Your task to perform on an android device: open chrome privacy settings Image 0: 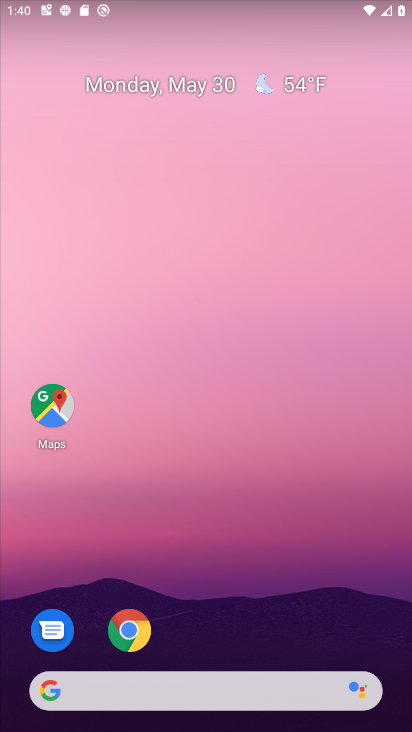
Step 0: press home button
Your task to perform on an android device: open chrome privacy settings Image 1: 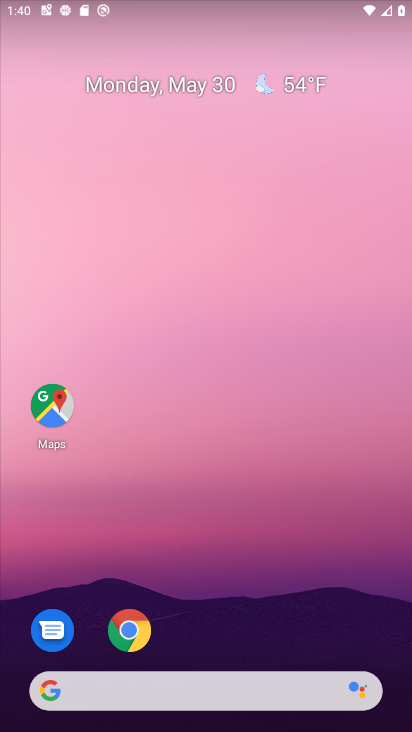
Step 1: click (127, 629)
Your task to perform on an android device: open chrome privacy settings Image 2: 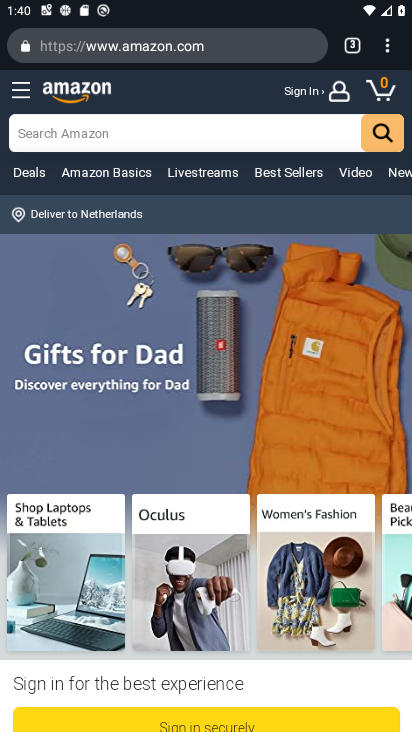
Step 2: drag from (393, 40) to (258, 561)
Your task to perform on an android device: open chrome privacy settings Image 3: 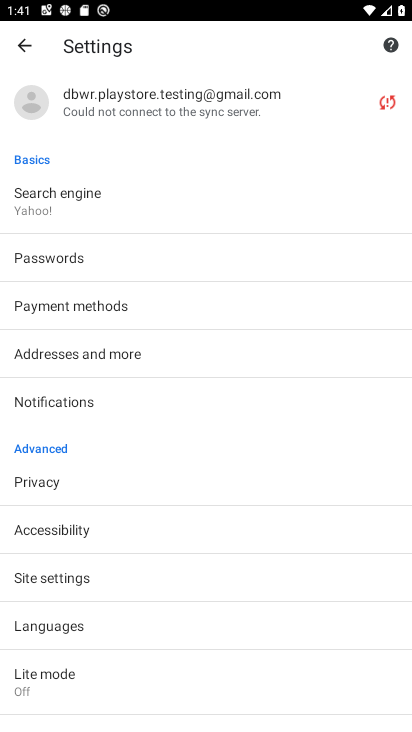
Step 3: click (32, 478)
Your task to perform on an android device: open chrome privacy settings Image 4: 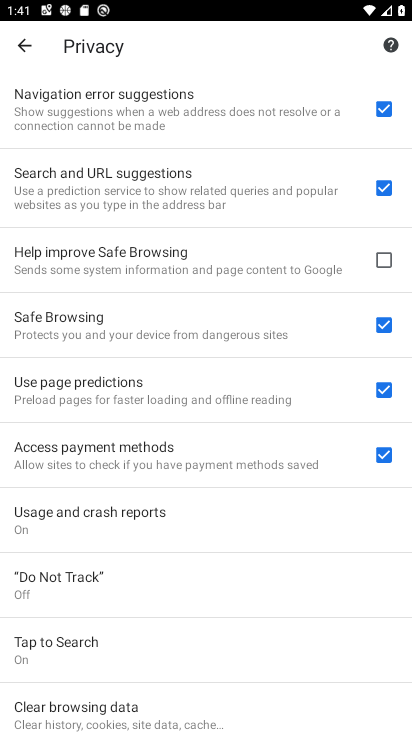
Step 4: task complete